Your task to perform on an android device: Go to Yahoo.com Image 0: 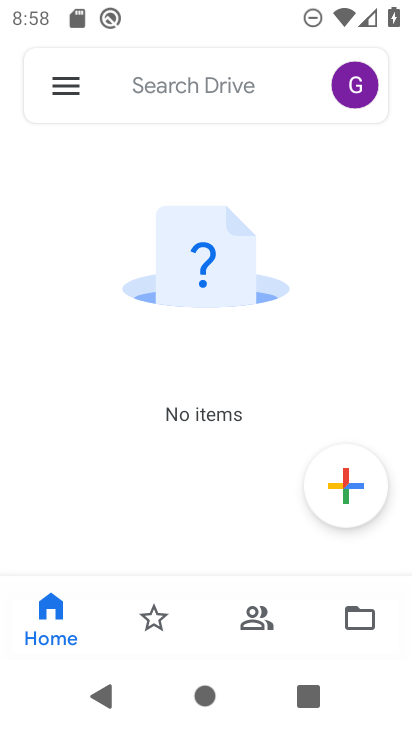
Step 0: press home button
Your task to perform on an android device: Go to Yahoo.com Image 1: 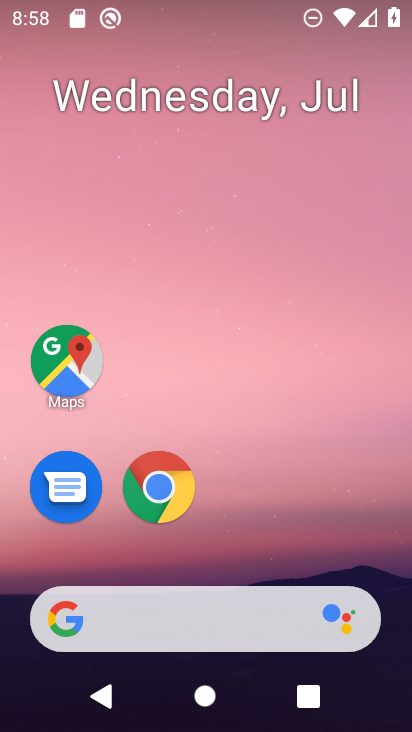
Step 1: drag from (350, 544) to (404, 107)
Your task to perform on an android device: Go to Yahoo.com Image 2: 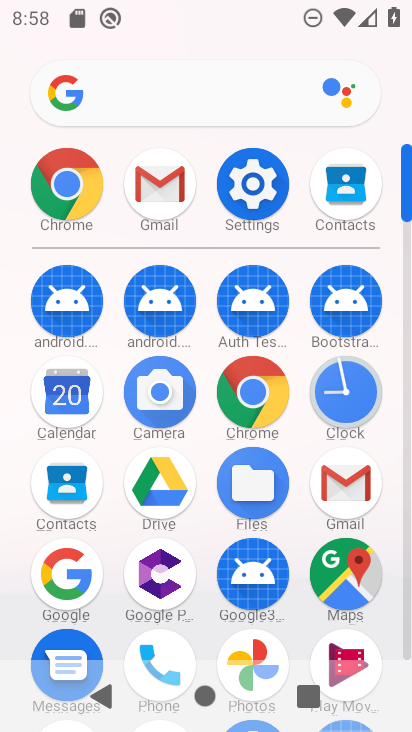
Step 2: click (261, 389)
Your task to perform on an android device: Go to Yahoo.com Image 3: 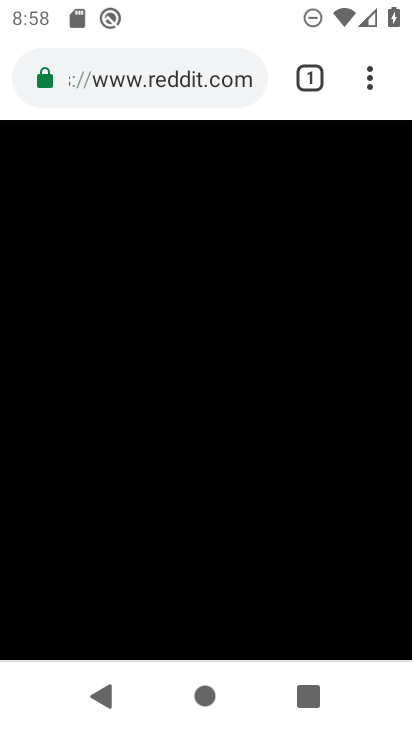
Step 3: click (222, 88)
Your task to perform on an android device: Go to Yahoo.com Image 4: 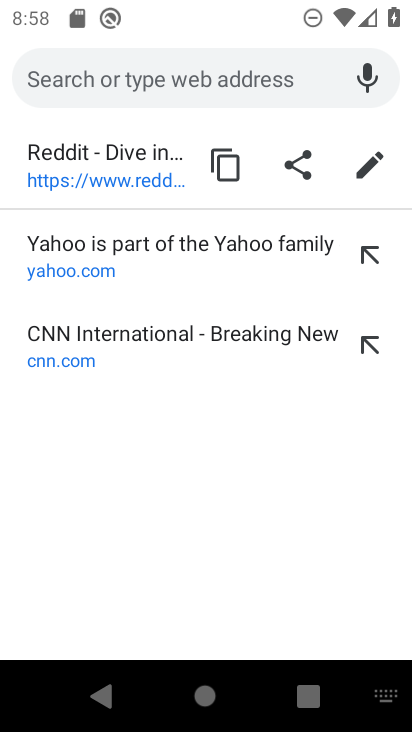
Step 4: type "yahoo.com"
Your task to perform on an android device: Go to Yahoo.com Image 5: 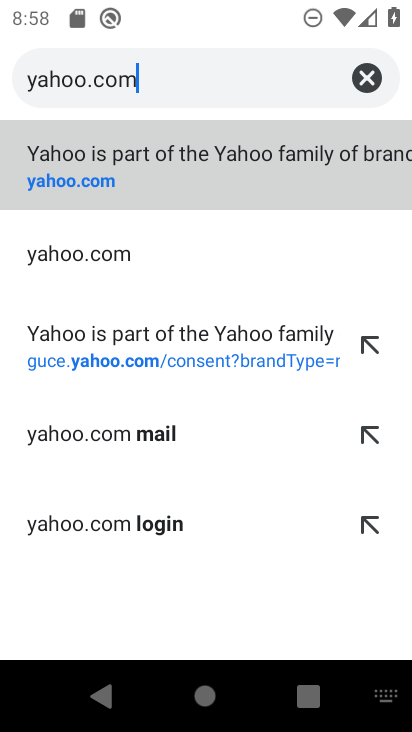
Step 5: click (325, 178)
Your task to perform on an android device: Go to Yahoo.com Image 6: 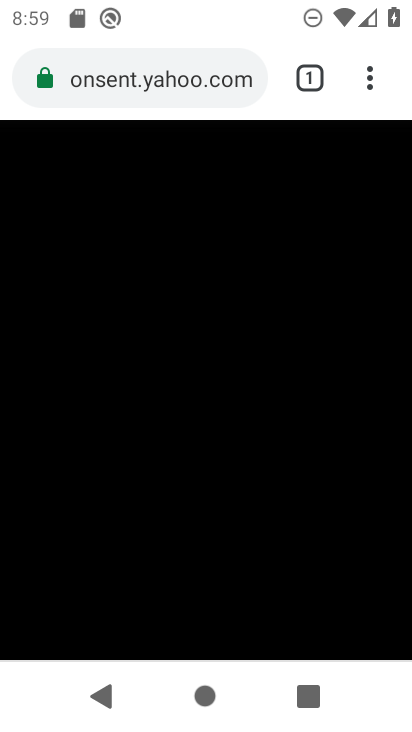
Step 6: task complete